Your task to perform on an android device: What is the recent news? Image 0: 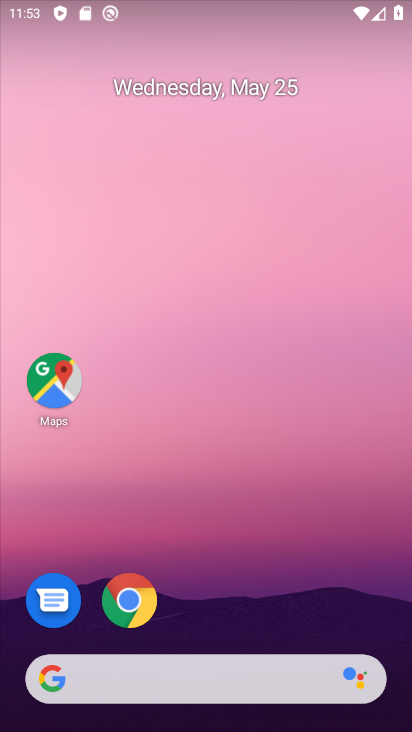
Step 0: click (130, 594)
Your task to perform on an android device: What is the recent news? Image 1: 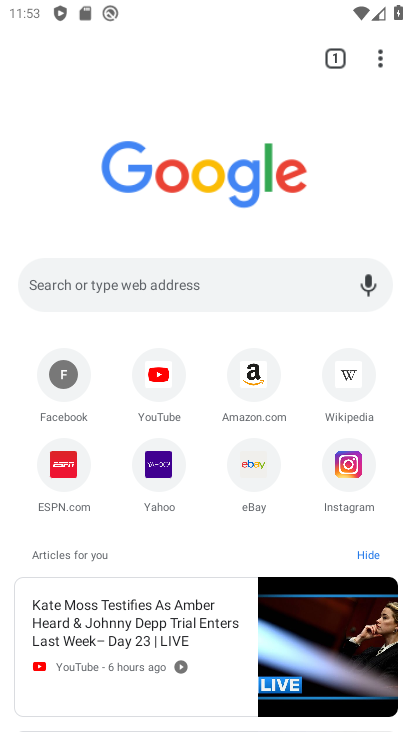
Step 1: click (220, 293)
Your task to perform on an android device: What is the recent news? Image 2: 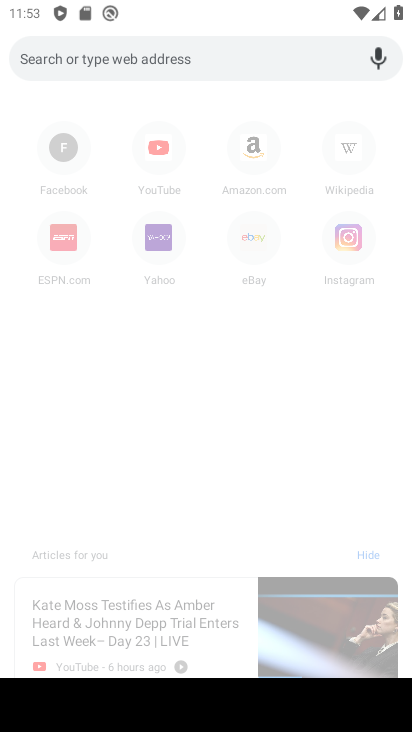
Step 2: type "news"
Your task to perform on an android device: What is the recent news? Image 3: 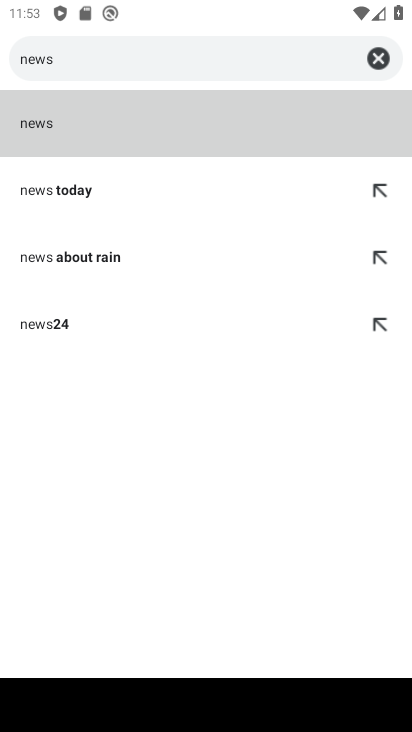
Step 3: click (39, 124)
Your task to perform on an android device: What is the recent news? Image 4: 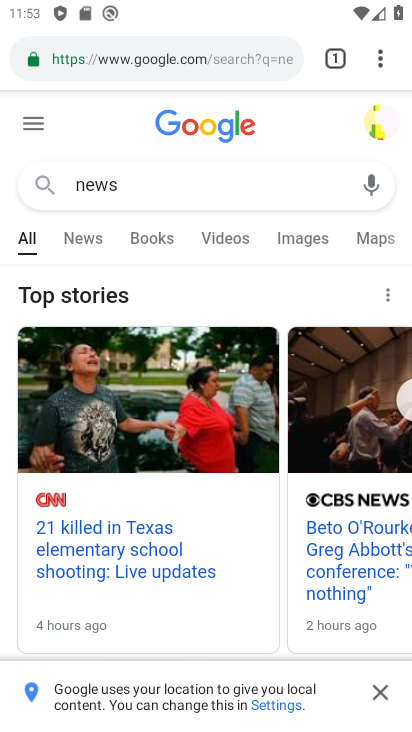
Step 4: click (94, 249)
Your task to perform on an android device: What is the recent news? Image 5: 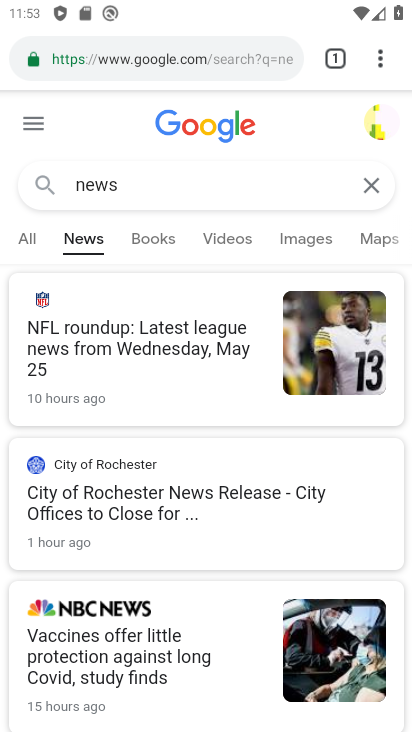
Step 5: task complete